Your task to perform on an android device: allow notifications from all sites in the chrome app Image 0: 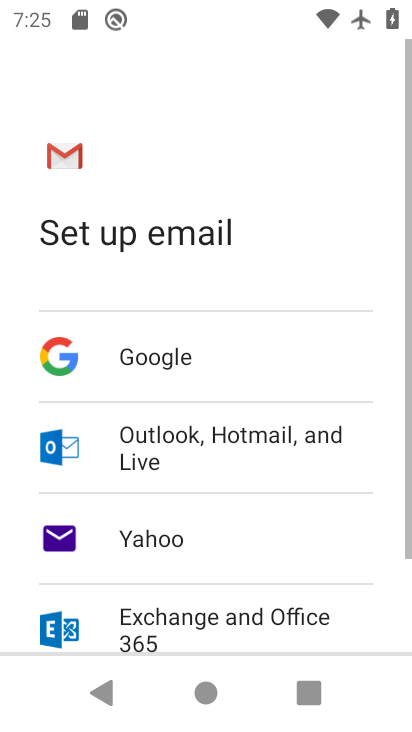
Step 0: press home button
Your task to perform on an android device: allow notifications from all sites in the chrome app Image 1: 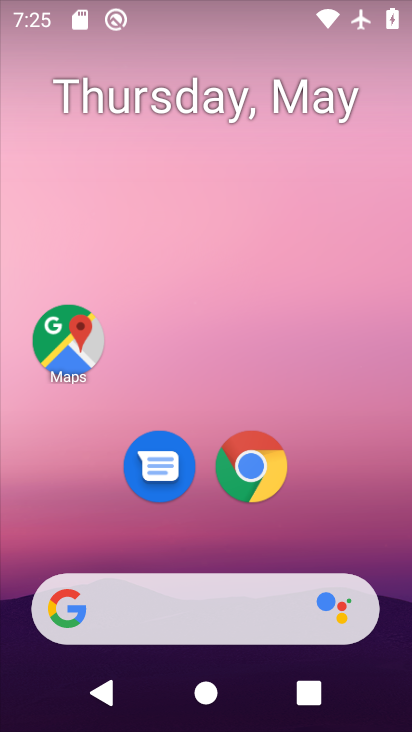
Step 1: click (268, 478)
Your task to perform on an android device: allow notifications from all sites in the chrome app Image 2: 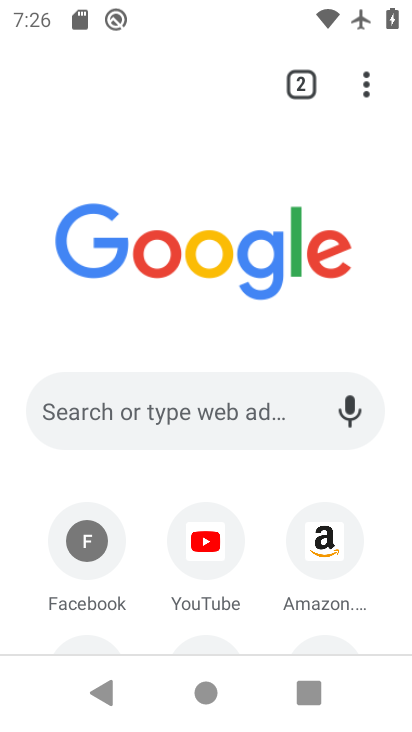
Step 2: click (378, 71)
Your task to perform on an android device: allow notifications from all sites in the chrome app Image 3: 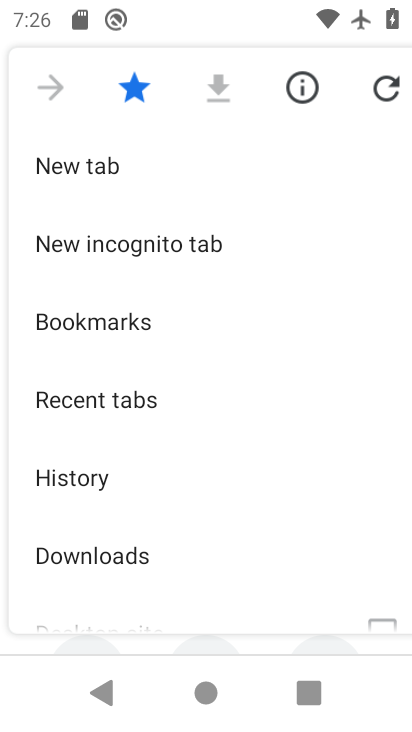
Step 3: drag from (169, 549) to (162, 189)
Your task to perform on an android device: allow notifications from all sites in the chrome app Image 4: 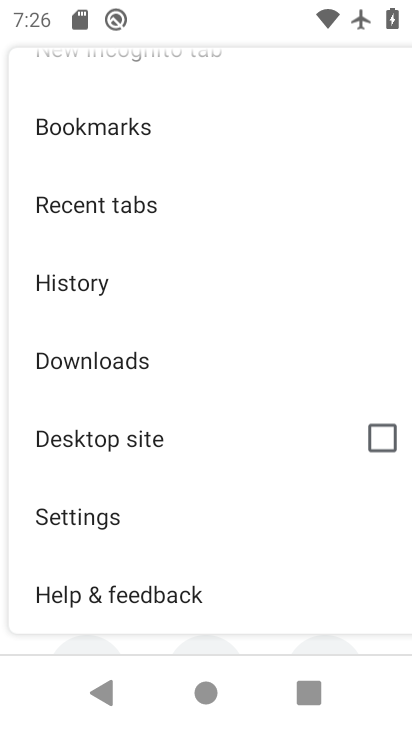
Step 4: click (224, 504)
Your task to perform on an android device: allow notifications from all sites in the chrome app Image 5: 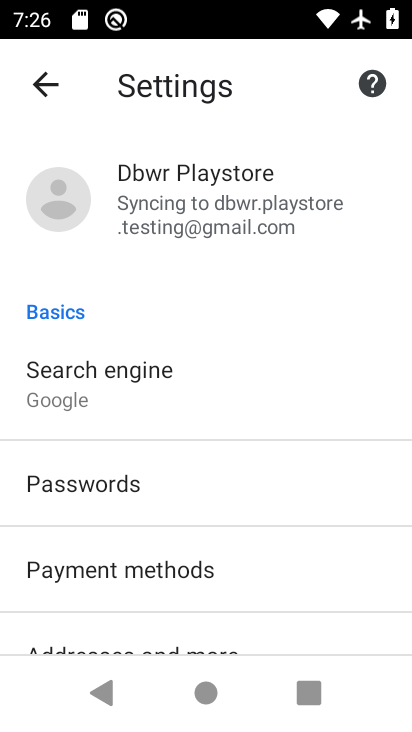
Step 5: task complete